Your task to perform on an android device: What's the weather going to be this weekend? Image 0: 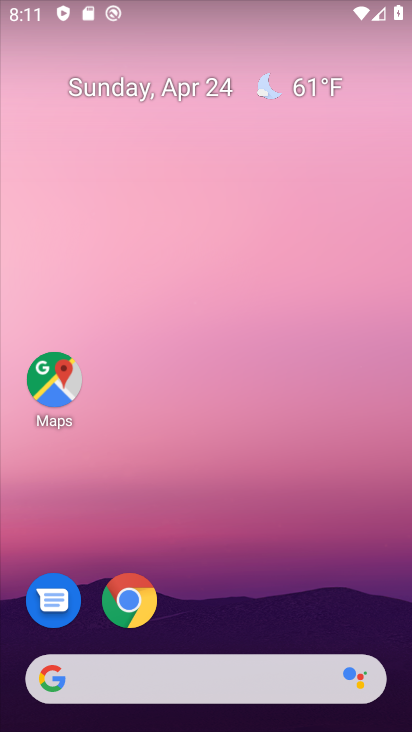
Step 0: click (266, 84)
Your task to perform on an android device: What's the weather going to be this weekend? Image 1: 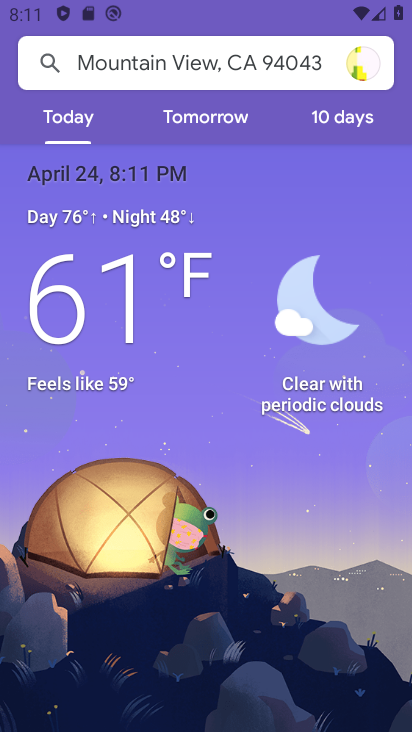
Step 1: click (337, 116)
Your task to perform on an android device: What's the weather going to be this weekend? Image 2: 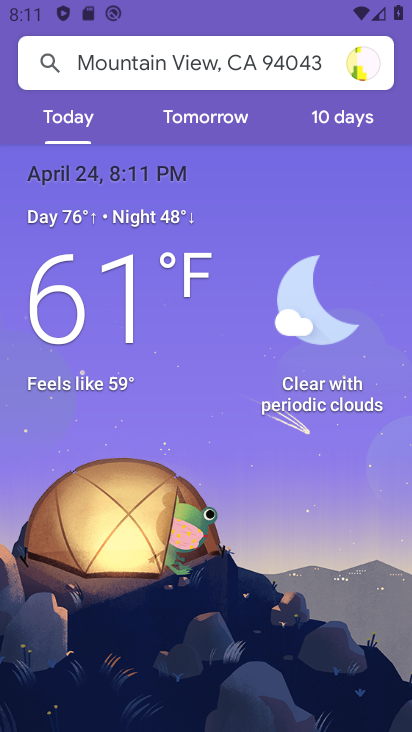
Step 2: click (338, 117)
Your task to perform on an android device: What's the weather going to be this weekend? Image 3: 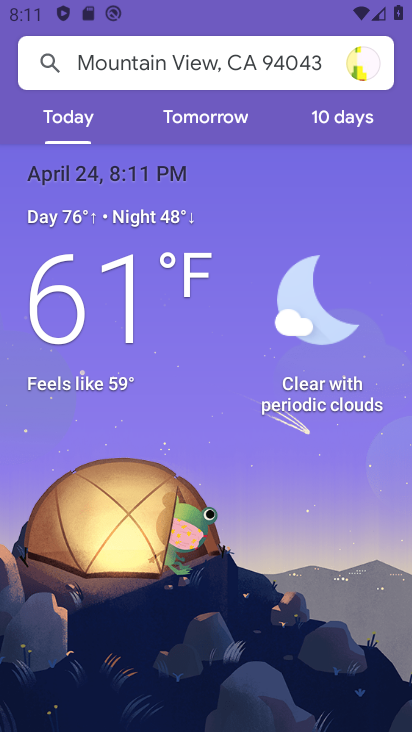
Step 3: click (337, 117)
Your task to perform on an android device: What's the weather going to be this weekend? Image 4: 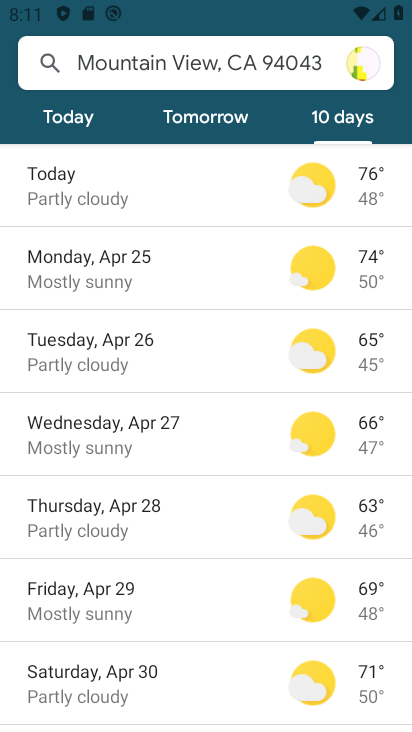
Step 4: drag from (189, 674) to (187, 412)
Your task to perform on an android device: What's the weather going to be this weekend? Image 5: 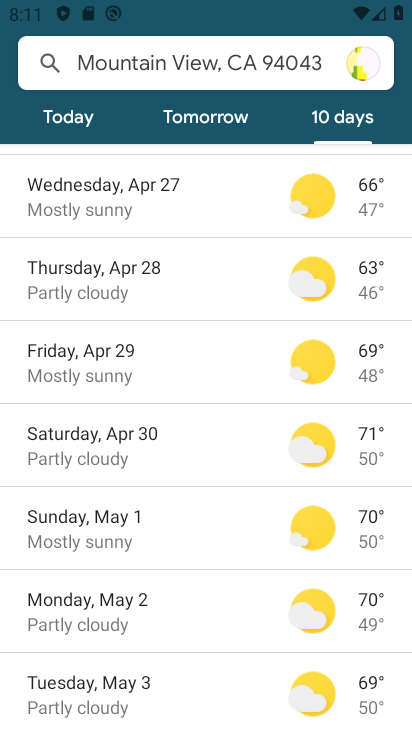
Step 5: click (147, 424)
Your task to perform on an android device: What's the weather going to be this weekend? Image 6: 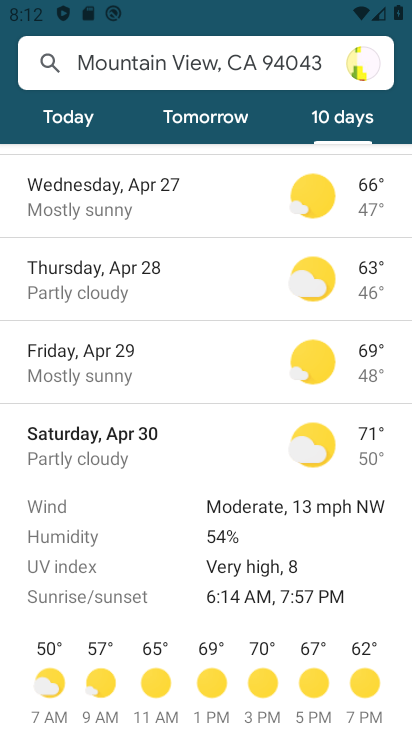
Step 6: task complete